Your task to perform on an android device: Check the news Image 0: 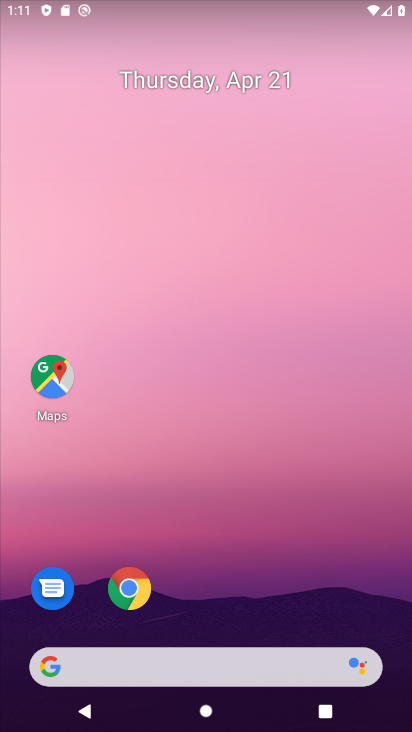
Step 0: drag from (157, 257) to (377, 246)
Your task to perform on an android device: Check the news Image 1: 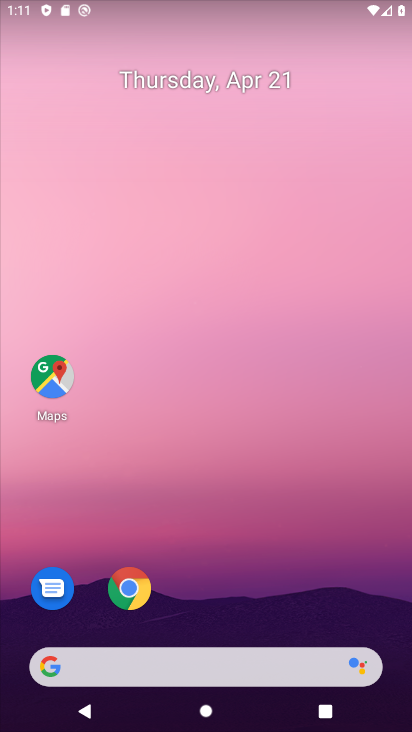
Step 1: task complete